Your task to perform on an android device: Open CNN.com Image 0: 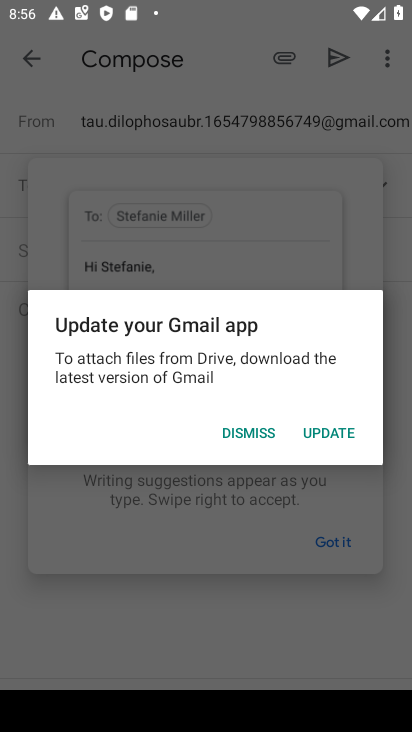
Step 0: press home button
Your task to perform on an android device: Open CNN.com Image 1: 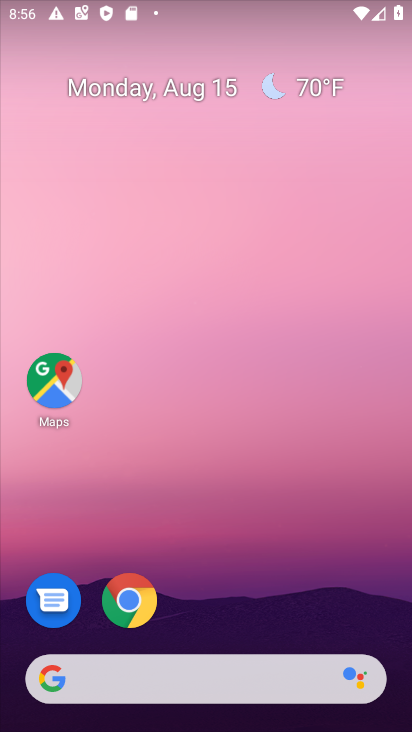
Step 1: click (127, 601)
Your task to perform on an android device: Open CNN.com Image 2: 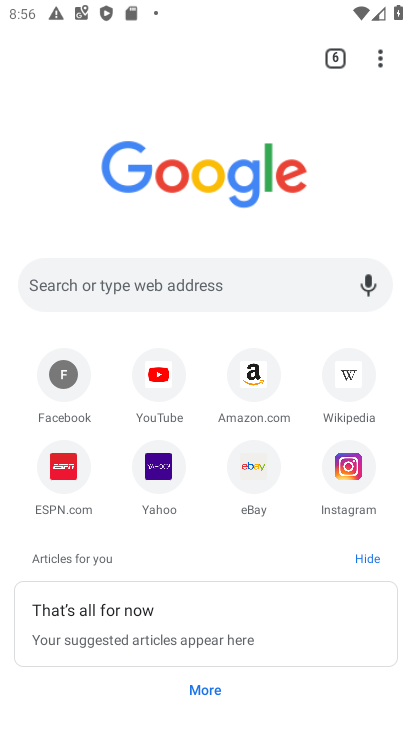
Step 2: click (201, 286)
Your task to perform on an android device: Open CNN.com Image 3: 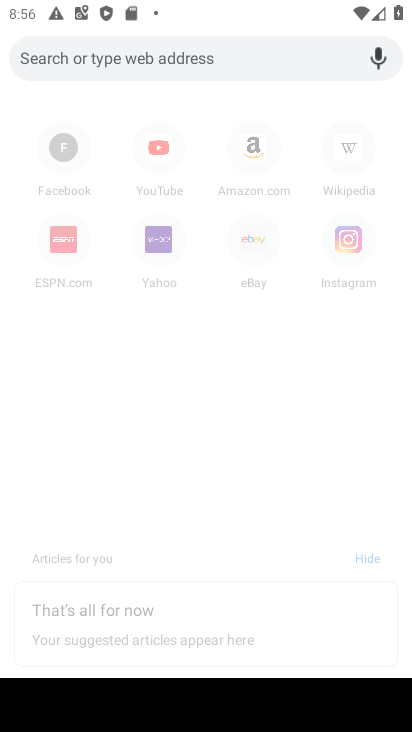
Step 3: type "CNN>com"
Your task to perform on an android device: Open CNN.com Image 4: 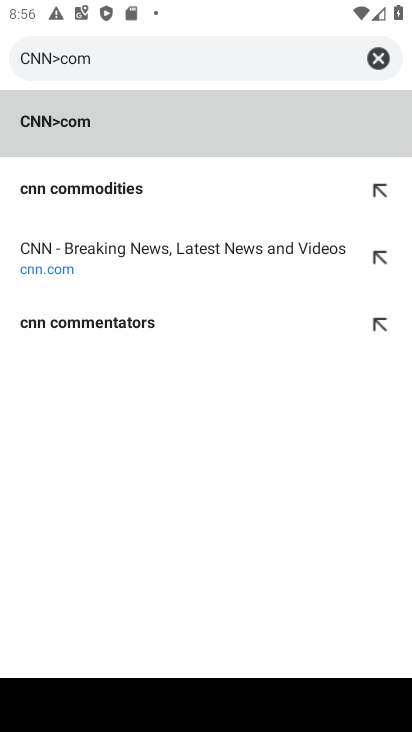
Step 4: click (32, 117)
Your task to perform on an android device: Open CNN.com Image 5: 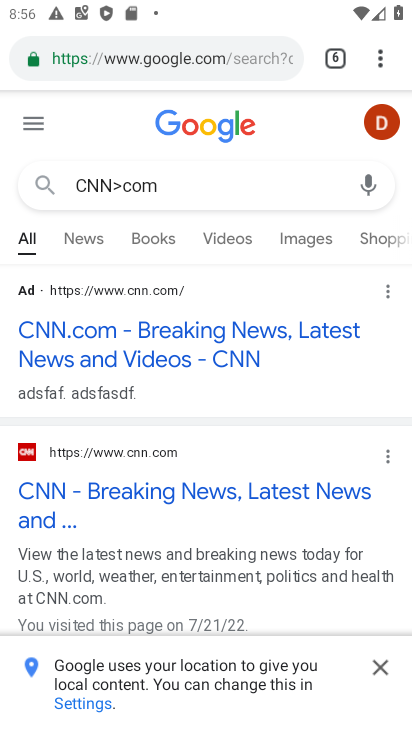
Step 5: click (93, 354)
Your task to perform on an android device: Open CNN.com Image 6: 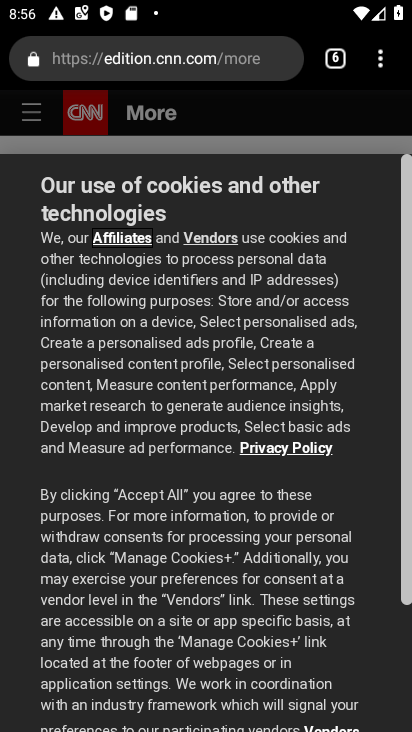
Step 6: task complete